Your task to perform on an android device: change the clock display to show seconds Image 0: 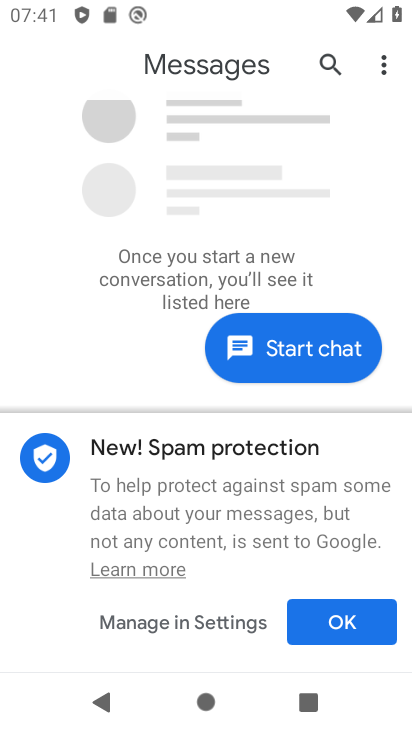
Step 0: press home button
Your task to perform on an android device: change the clock display to show seconds Image 1: 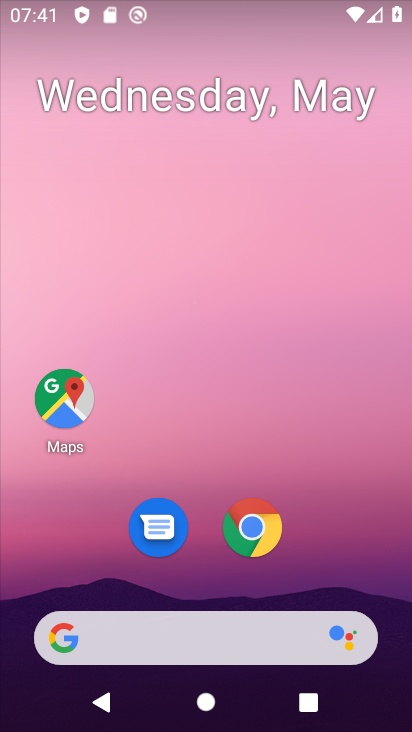
Step 1: press home button
Your task to perform on an android device: change the clock display to show seconds Image 2: 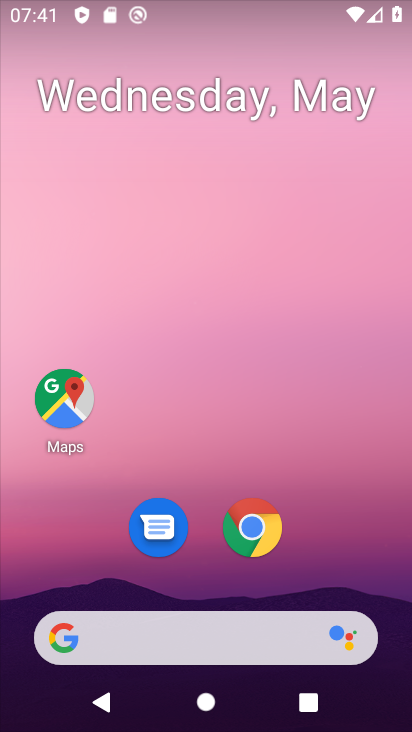
Step 2: drag from (266, 310) to (353, 139)
Your task to perform on an android device: change the clock display to show seconds Image 3: 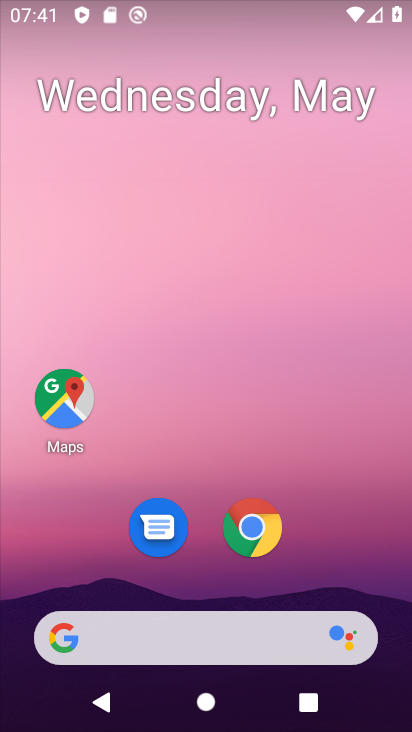
Step 3: click (371, 2)
Your task to perform on an android device: change the clock display to show seconds Image 4: 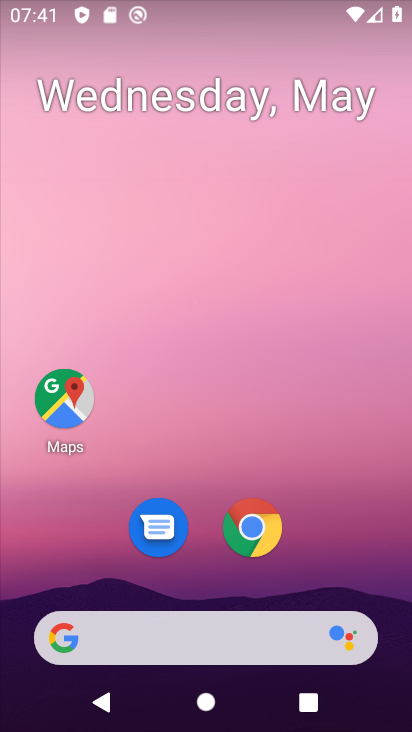
Step 4: click (310, 19)
Your task to perform on an android device: change the clock display to show seconds Image 5: 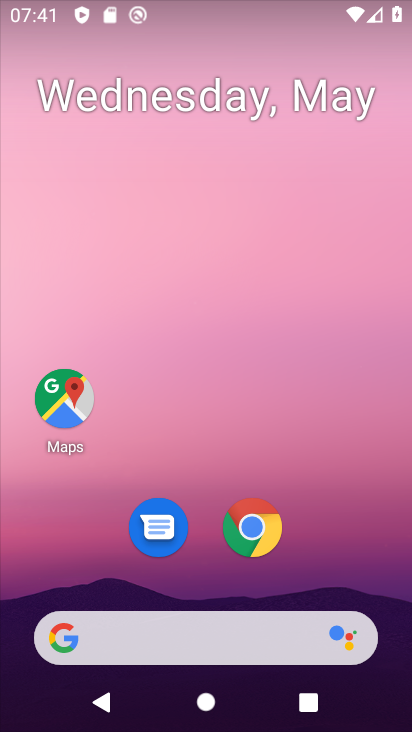
Step 5: drag from (396, 694) to (374, 0)
Your task to perform on an android device: change the clock display to show seconds Image 6: 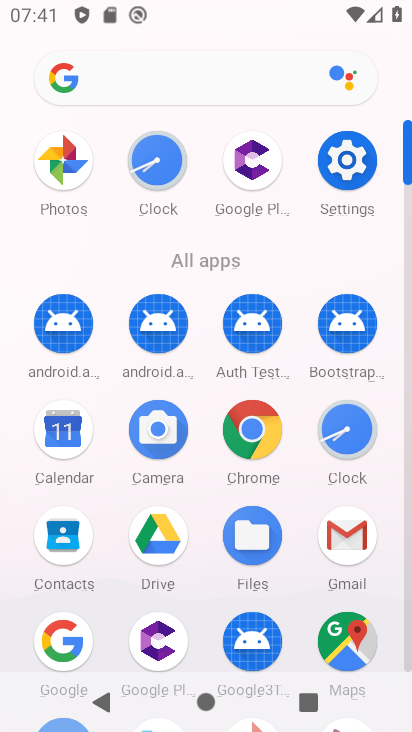
Step 6: click (339, 427)
Your task to perform on an android device: change the clock display to show seconds Image 7: 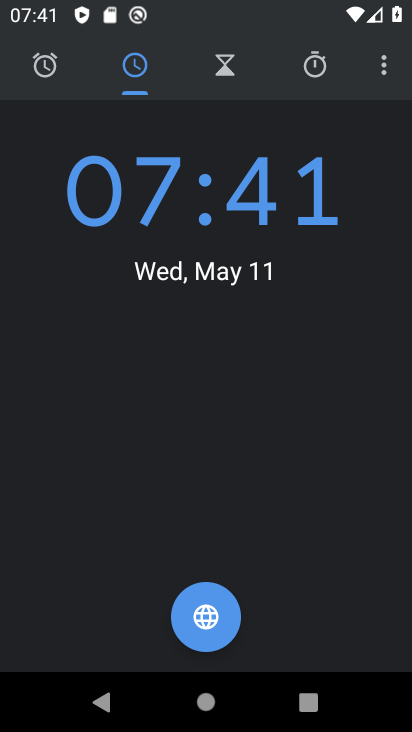
Step 7: click (387, 59)
Your task to perform on an android device: change the clock display to show seconds Image 8: 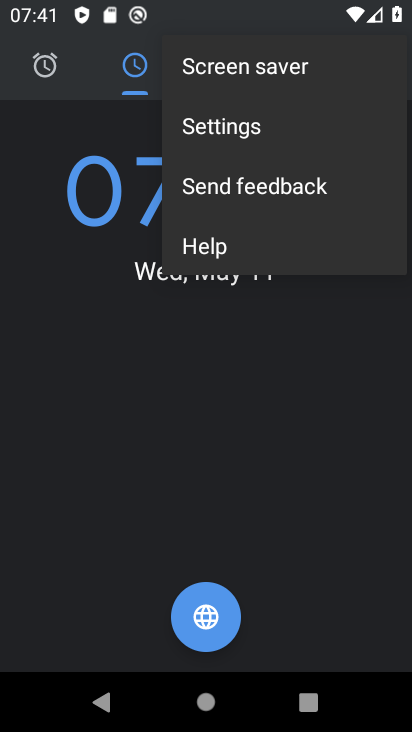
Step 8: click (372, 120)
Your task to perform on an android device: change the clock display to show seconds Image 9: 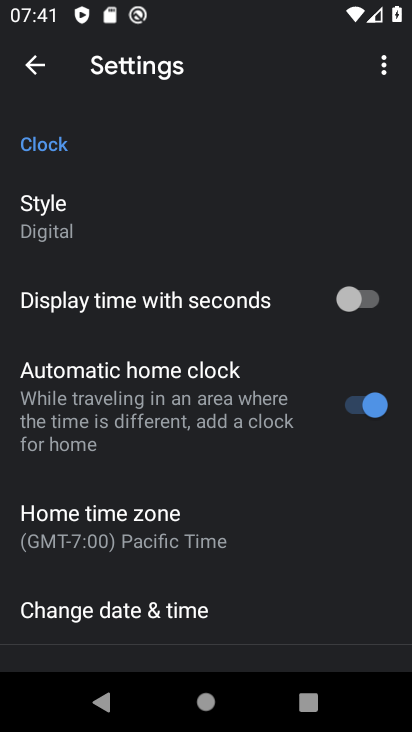
Step 9: click (265, 306)
Your task to perform on an android device: change the clock display to show seconds Image 10: 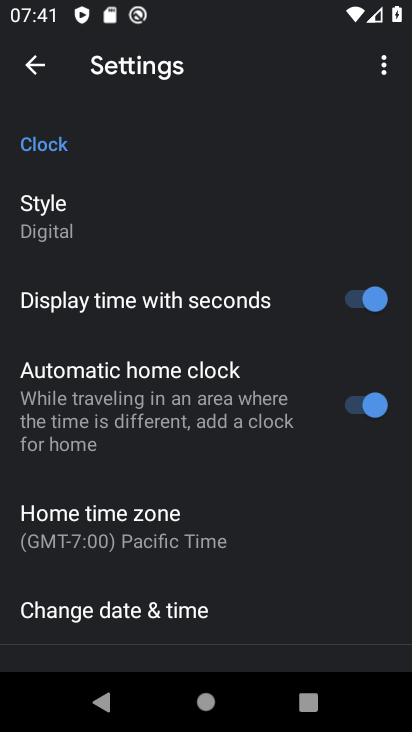
Step 10: task complete